Your task to perform on an android device: turn off location Image 0: 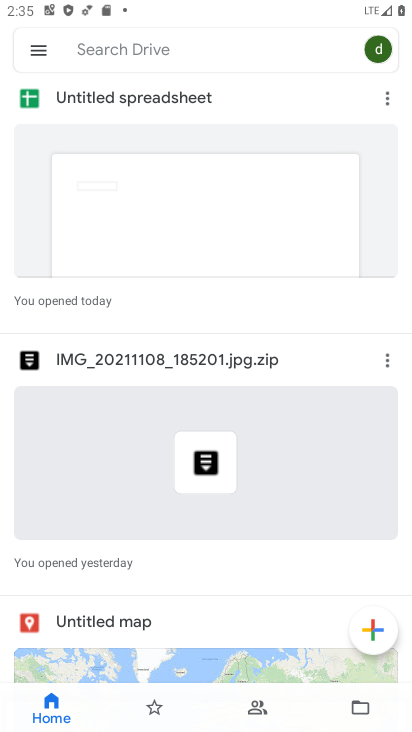
Step 0: press home button
Your task to perform on an android device: turn off location Image 1: 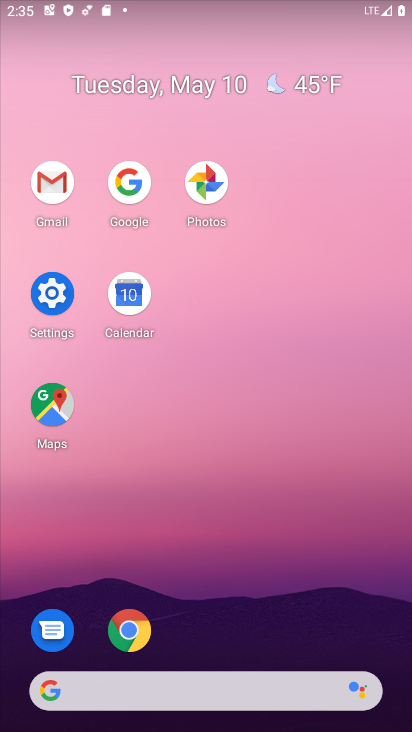
Step 1: click (57, 295)
Your task to perform on an android device: turn off location Image 2: 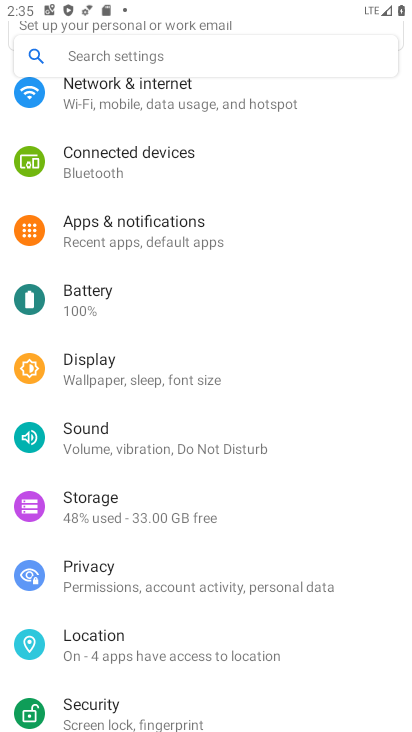
Step 2: click (206, 651)
Your task to perform on an android device: turn off location Image 3: 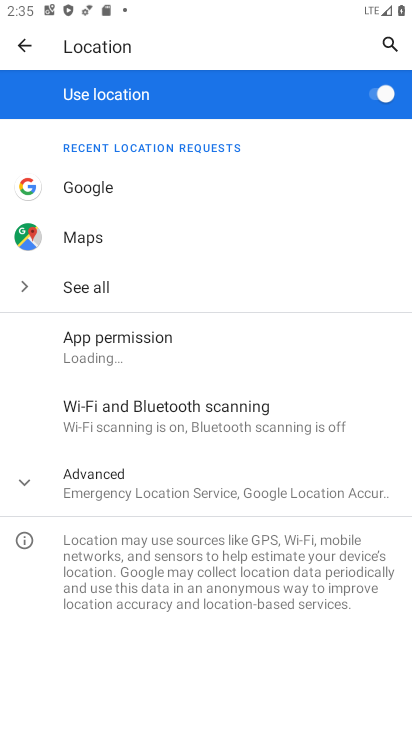
Step 3: click (376, 105)
Your task to perform on an android device: turn off location Image 4: 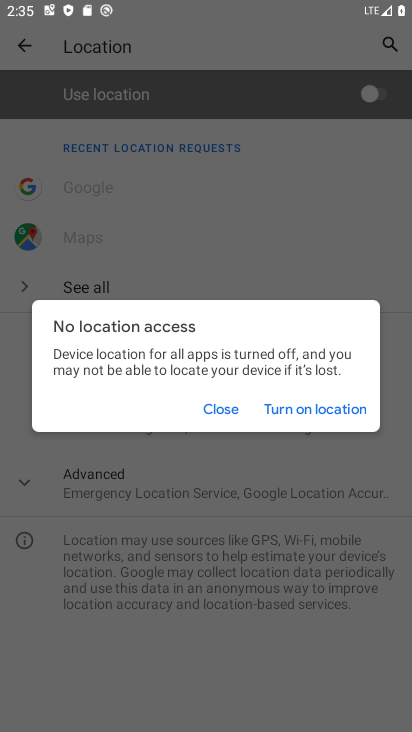
Step 4: task complete